Your task to perform on an android device: Go to accessibility settings Image 0: 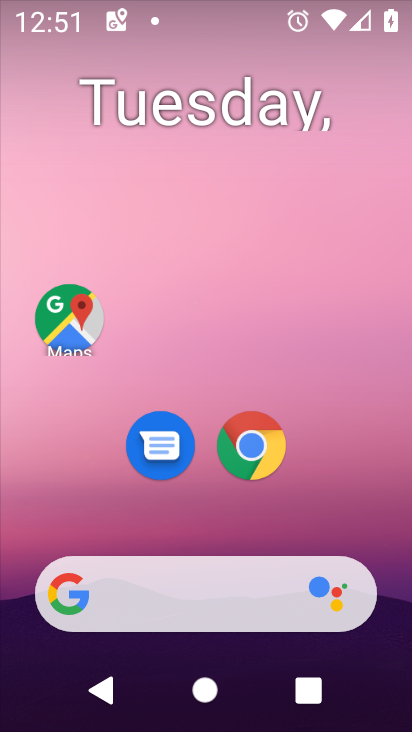
Step 0: drag from (277, 506) to (318, 209)
Your task to perform on an android device: Go to accessibility settings Image 1: 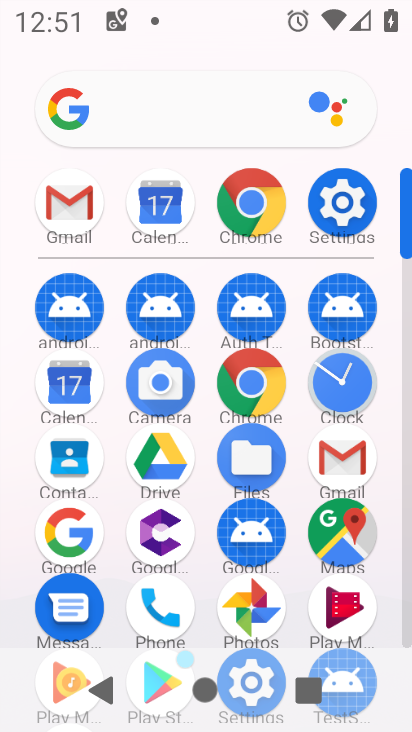
Step 1: click (328, 190)
Your task to perform on an android device: Go to accessibility settings Image 2: 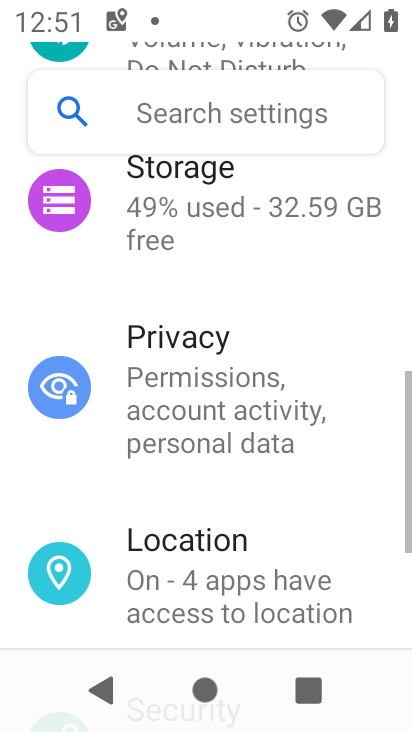
Step 2: drag from (236, 215) to (184, 585)
Your task to perform on an android device: Go to accessibility settings Image 3: 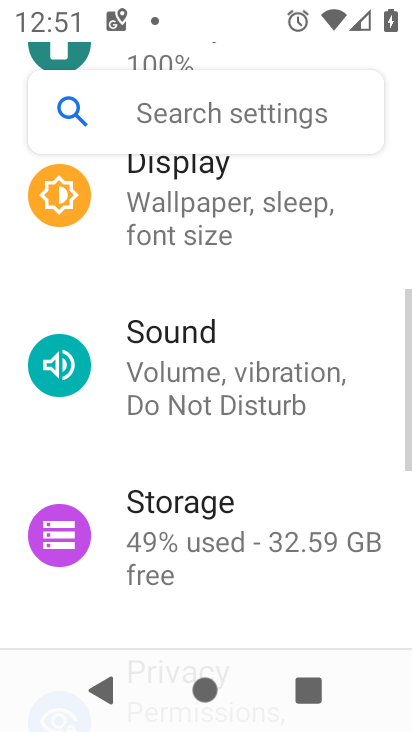
Step 3: drag from (261, 252) to (201, 593)
Your task to perform on an android device: Go to accessibility settings Image 4: 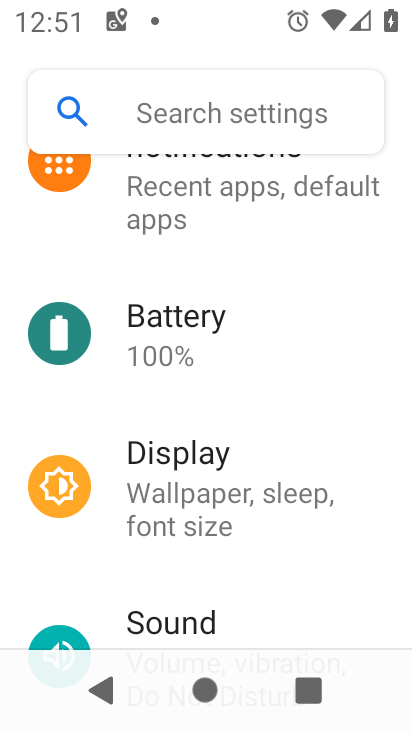
Step 4: drag from (237, 259) to (188, 590)
Your task to perform on an android device: Go to accessibility settings Image 5: 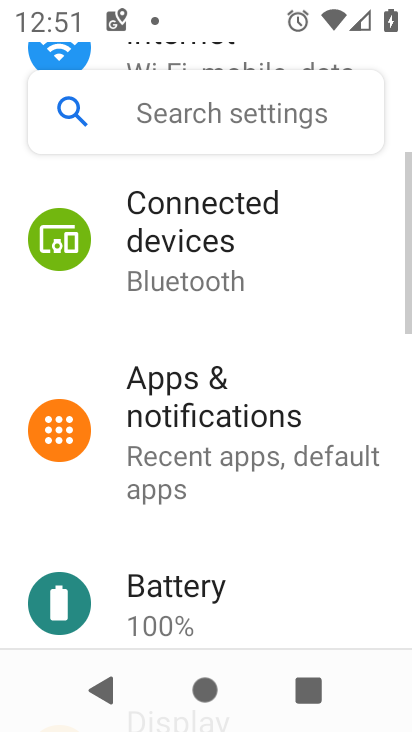
Step 5: drag from (207, 228) to (249, 150)
Your task to perform on an android device: Go to accessibility settings Image 6: 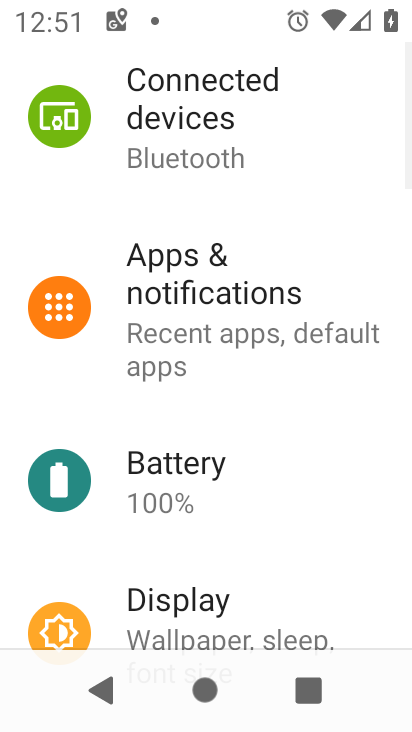
Step 6: drag from (155, 509) to (292, 113)
Your task to perform on an android device: Go to accessibility settings Image 7: 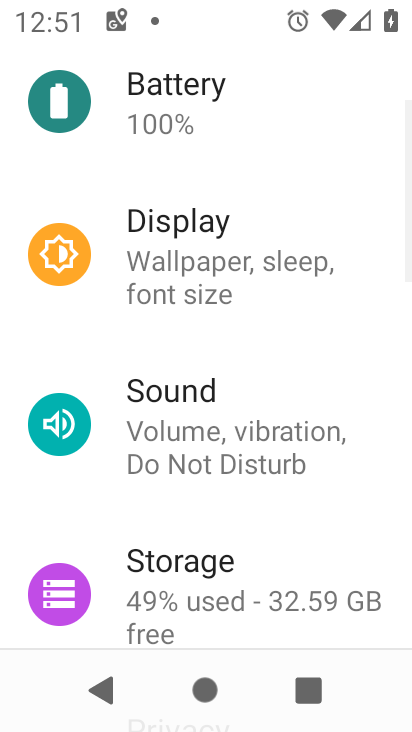
Step 7: drag from (183, 533) to (278, 154)
Your task to perform on an android device: Go to accessibility settings Image 8: 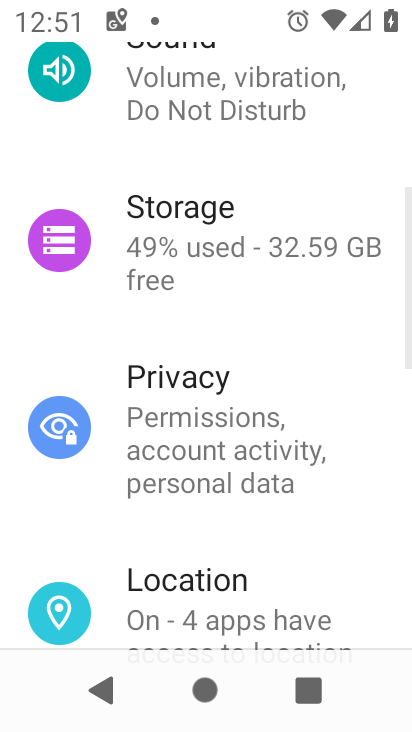
Step 8: drag from (129, 600) to (251, 188)
Your task to perform on an android device: Go to accessibility settings Image 9: 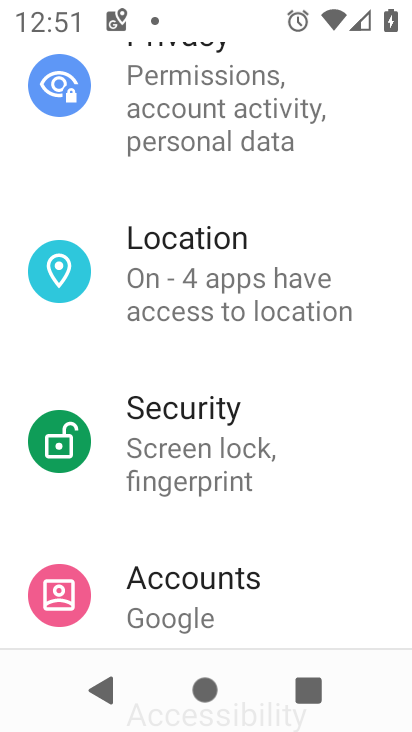
Step 9: drag from (163, 561) to (258, 223)
Your task to perform on an android device: Go to accessibility settings Image 10: 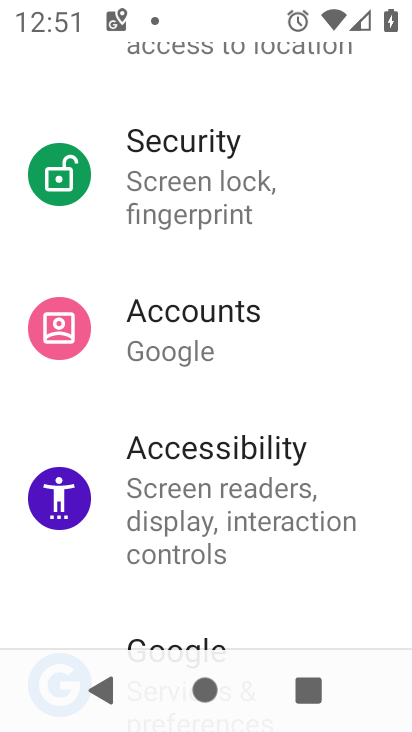
Step 10: click (180, 512)
Your task to perform on an android device: Go to accessibility settings Image 11: 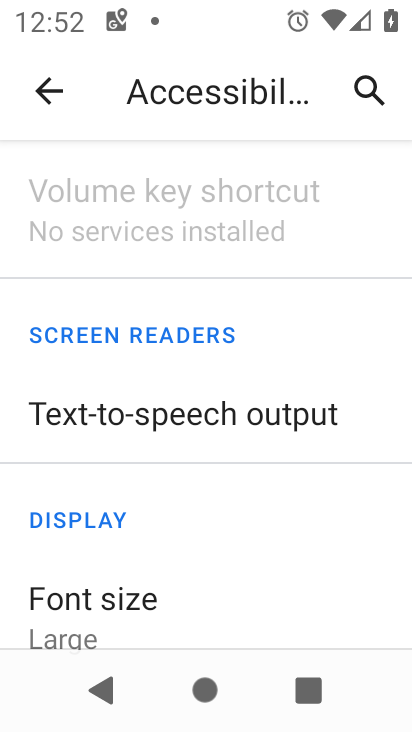
Step 11: task complete